Your task to perform on an android device: Go to CNN.com Image 0: 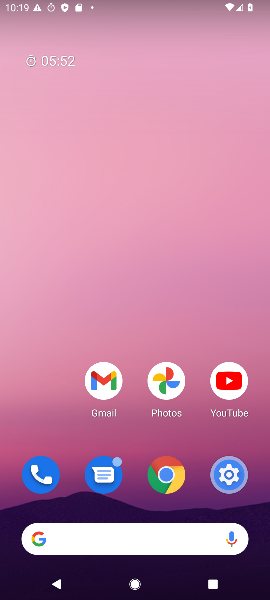
Step 0: drag from (136, 411) to (140, 32)
Your task to perform on an android device: Go to CNN.com Image 1: 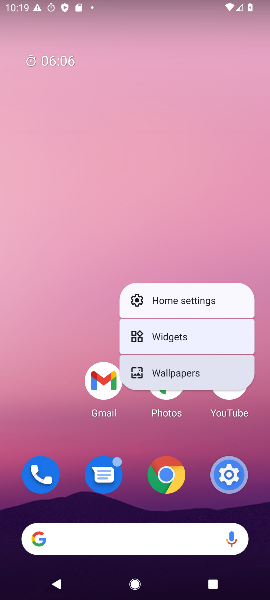
Step 1: click (230, 484)
Your task to perform on an android device: Go to CNN.com Image 2: 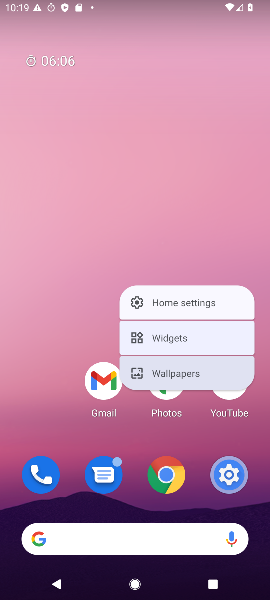
Step 2: click (232, 484)
Your task to perform on an android device: Go to CNN.com Image 3: 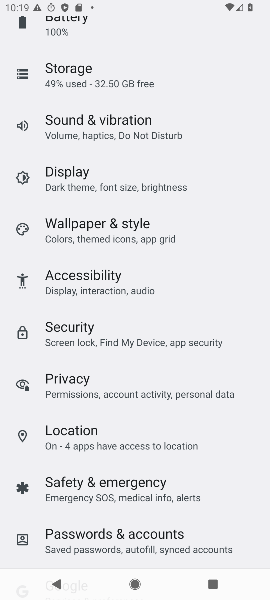
Step 3: click (237, 482)
Your task to perform on an android device: Go to CNN.com Image 4: 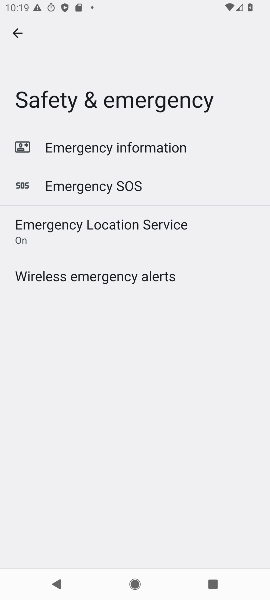
Step 4: click (83, 281)
Your task to perform on an android device: Go to CNN.com Image 5: 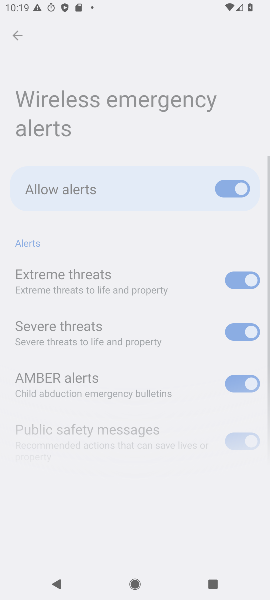
Step 5: click (23, 52)
Your task to perform on an android device: Go to CNN.com Image 6: 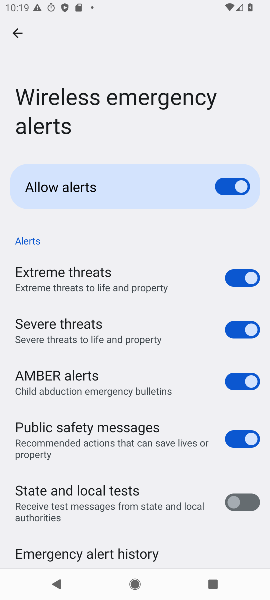
Step 6: click (17, 31)
Your task to perform on an android device: Go to CNN.com Image 7: 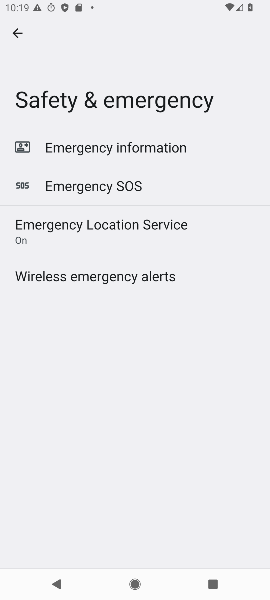
Step 7: click (16, 30)
Your task to perform on an android device: Go to CNN.com Image 8: 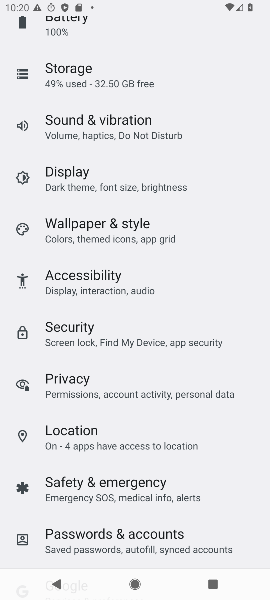
Step 8: click (110, 283)
Your task to perform on an android device: Go to CNN.com Image 9: 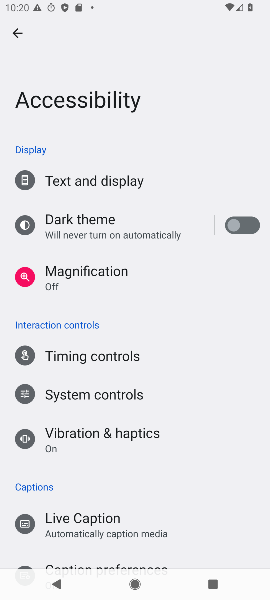
Step 9: press home button
Your task to perform on an android device: Go to CNN.com Image 10: 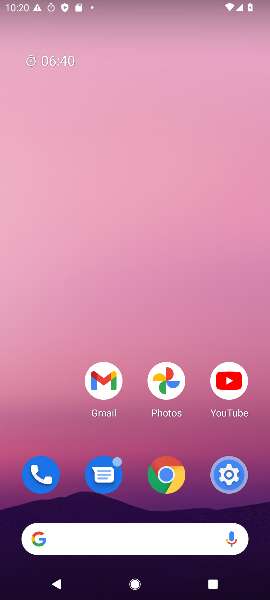
Step 10: click (169, 473)
Your task to perform on an android device: Go to CNN.com Image 11: 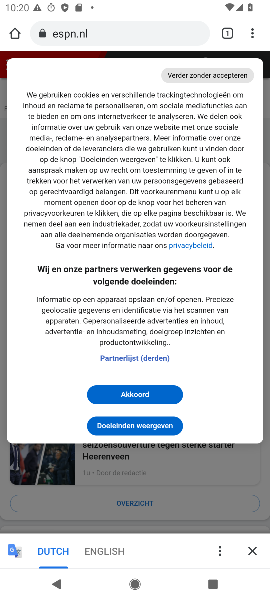
Step 11: click (177, 472)
Your task to perform on an android device: Go to CNN.com Image 12: 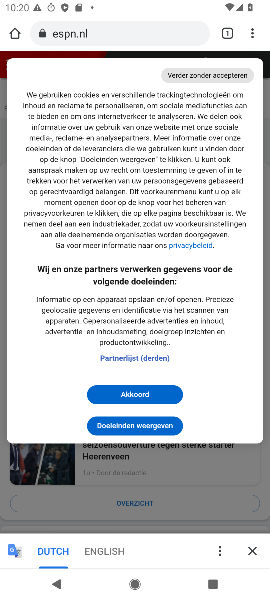
Step 12: click (105, 37)
Your task to perform on an android device: Go to CNN.com Image 13: 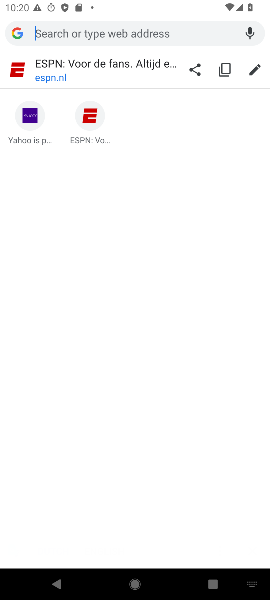
Step 13: type "CNN.com"
Your task to perform on an android device: Go to CNN.com Image 14: 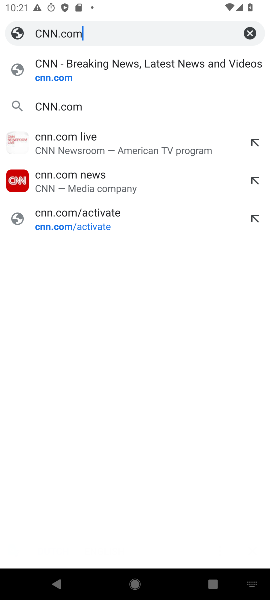
Step 14: click (97, 67)
Your task to perform on an android device: Go to CNN.com Image 15: 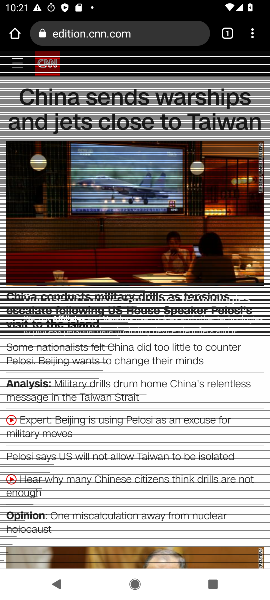
Step 15: task complete